Your task to perform on an android device: install app "Upside-Cash back on gas & food" Image 0: 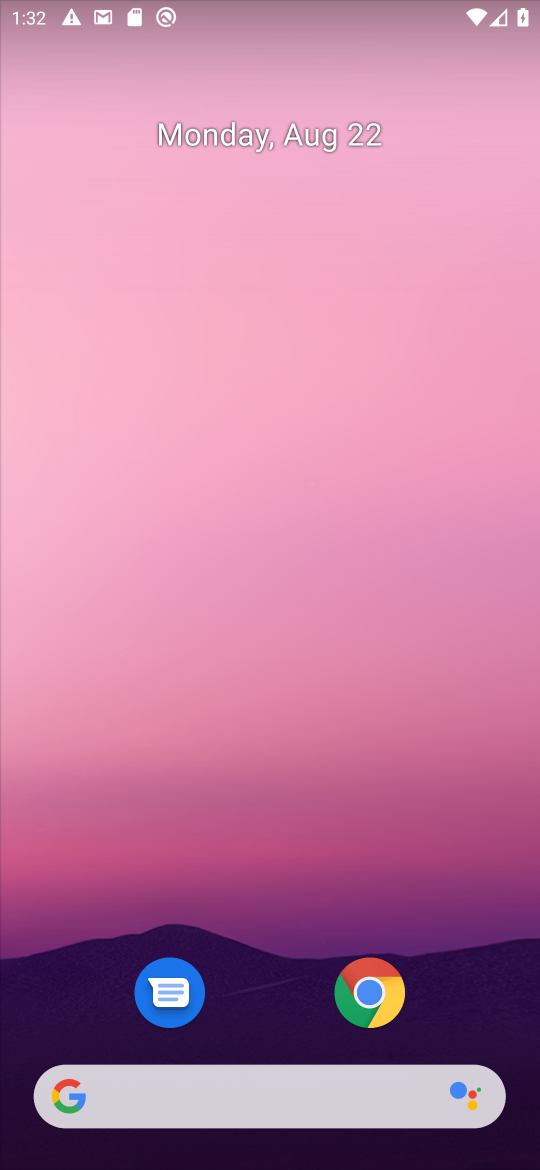
Step 0: drag from (240, 1091) to (367, 201)
Your task to perform on an android device: install app "Upside-Cash back on gas & food" Image 1: 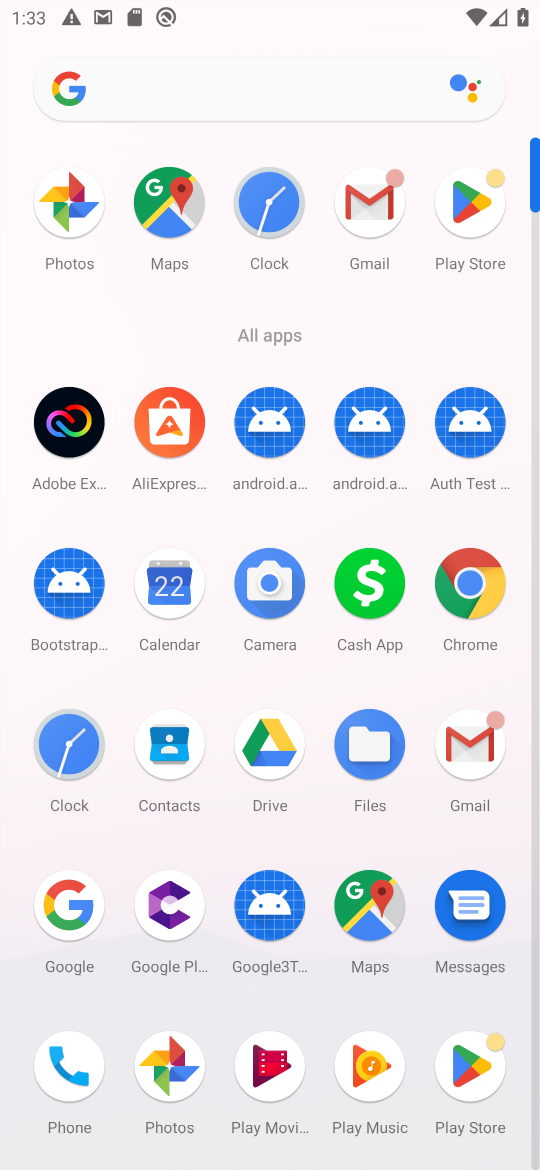
Step 1: click (469, 207)
Your task to perform on an android device: install app "Upside-Cash back on gas & food" Image 2: 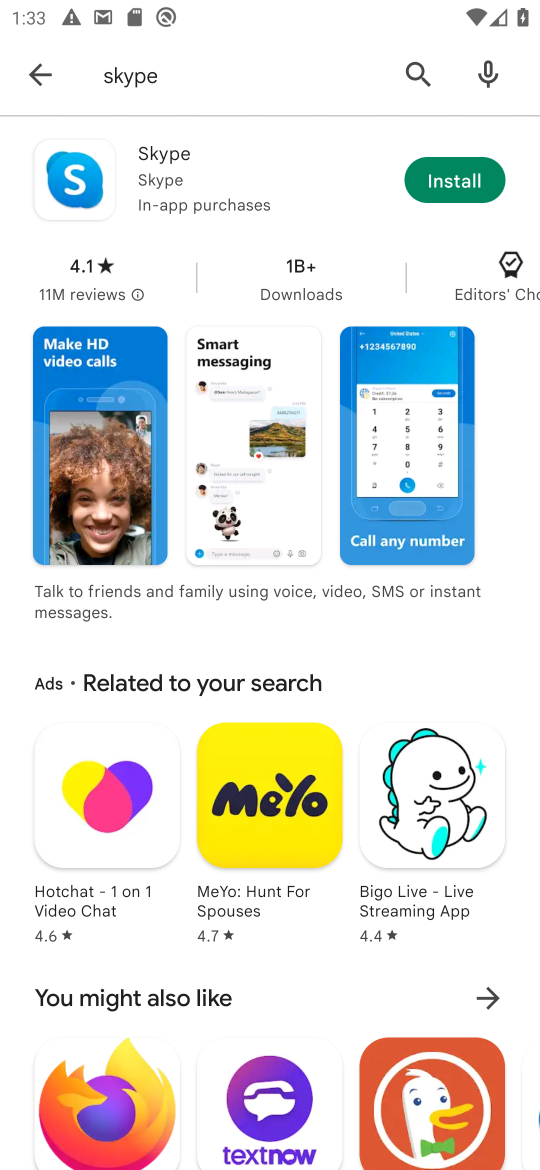
Step 2: click (412, 67)
Your task to perform on an android device: install app "Upside-Cash back on gas & food" Image 3: 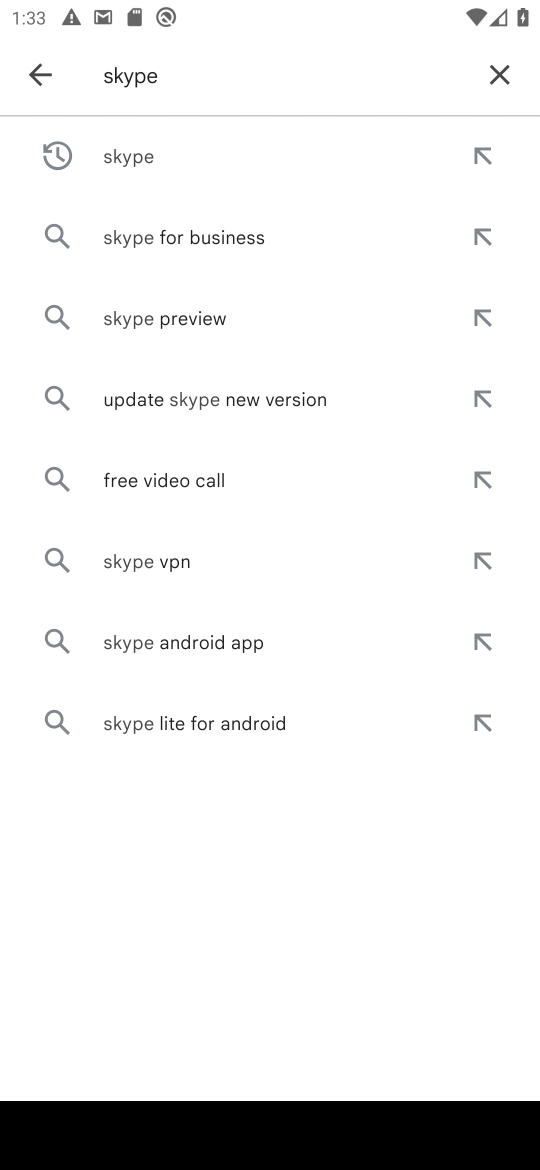
Step 3: click (508, 80)
Your task to perform on an android device: install app "Upside-Cash back on gas & food" Image 4: 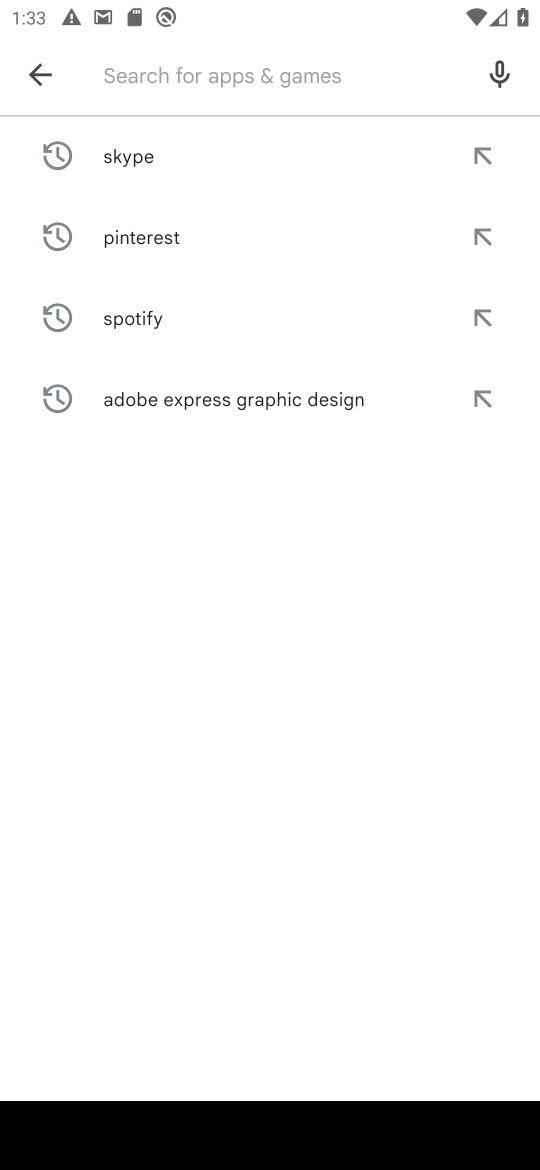
Step 4: type "Upside-Cash back on gas & food"
Your task to perform on an android device: install app "Upside-Cash back on gas & food" Image 5: 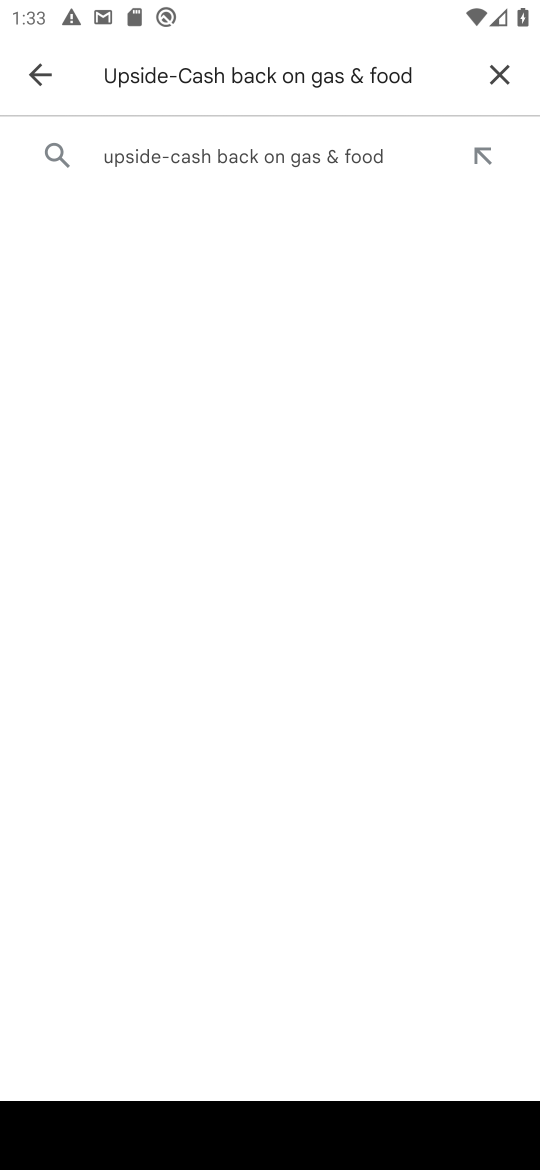
Step 5: click (137, 158)
Your task to perform on an android device: install app "Upside-Cash back on gas & food" Image 6: 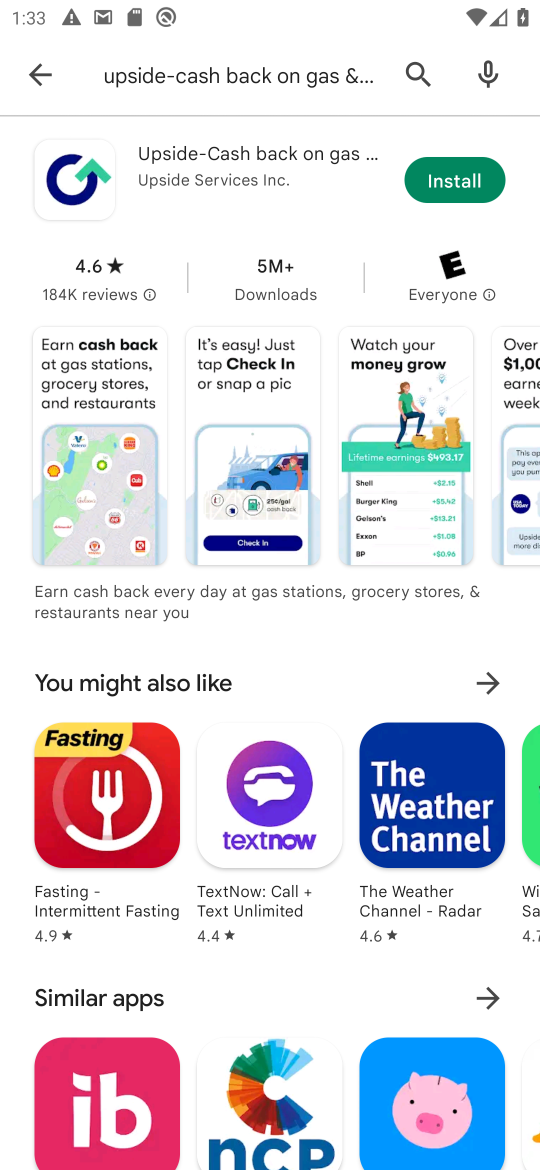
Step 6: click (453, 184)
Your task to perform on an android device: install app "Upside-Cash back on gas & food" Image 7: 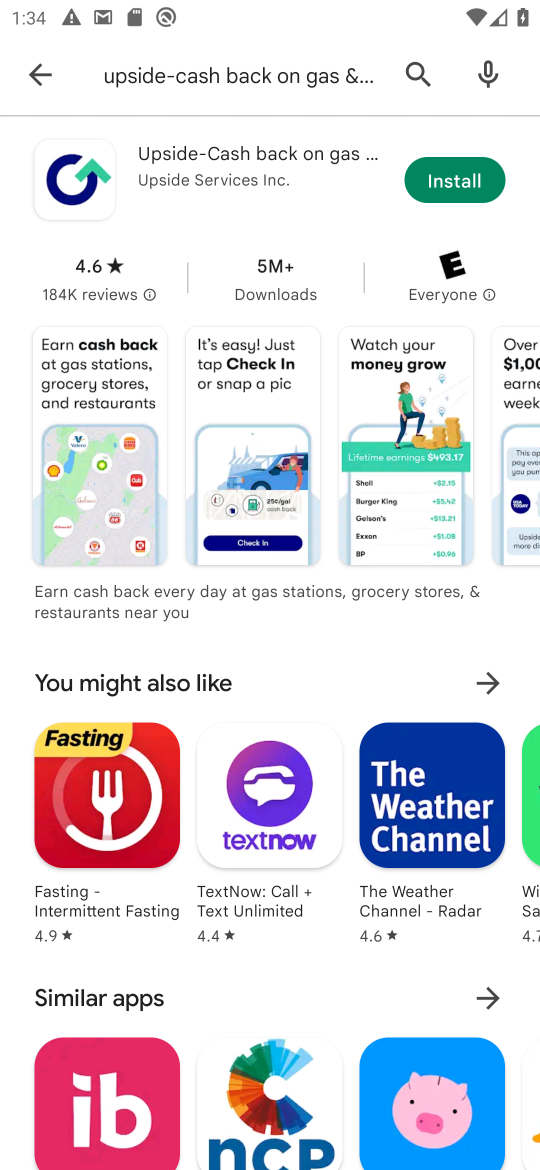
Step 7: task complete